Your task to perform on an android device: toggle notifications settings in the gmail app Image 0: 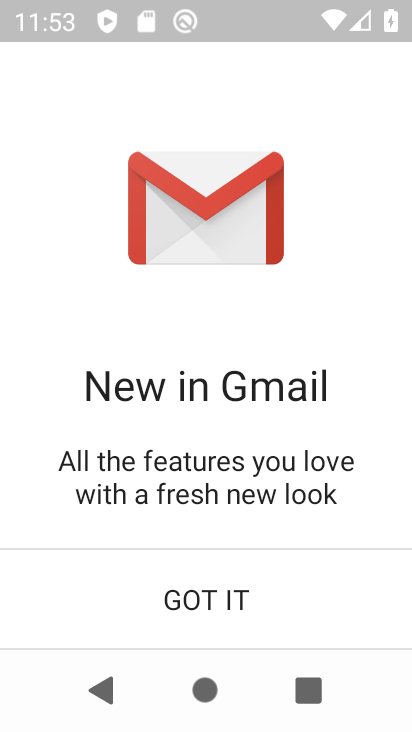
Step 0: press home button
Your task to perform on an android device: toggle notifications settings in the gmail app Image 1: 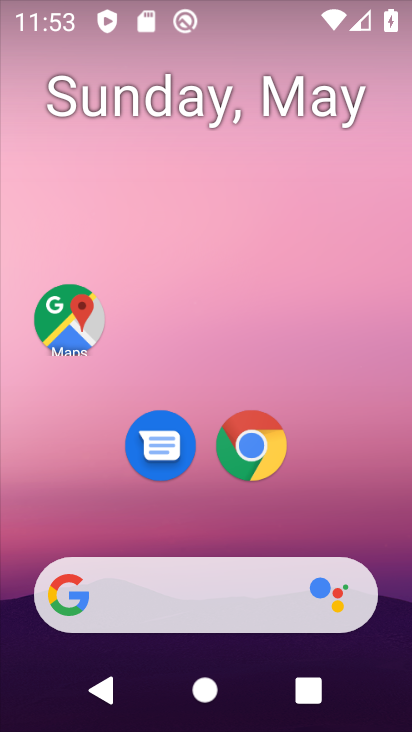
Step 1: drag from (296, 488) to (307, 73)
Your task to perform on an android device: toggle notifications settings in the gmail app Image 2: 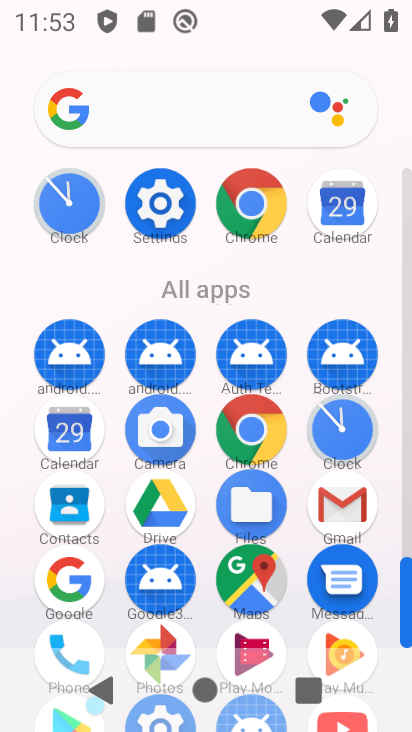
Step 2: click (345, 502)
Your task to perform on an android device: toggle notifications settings in the gmail app Image 3: 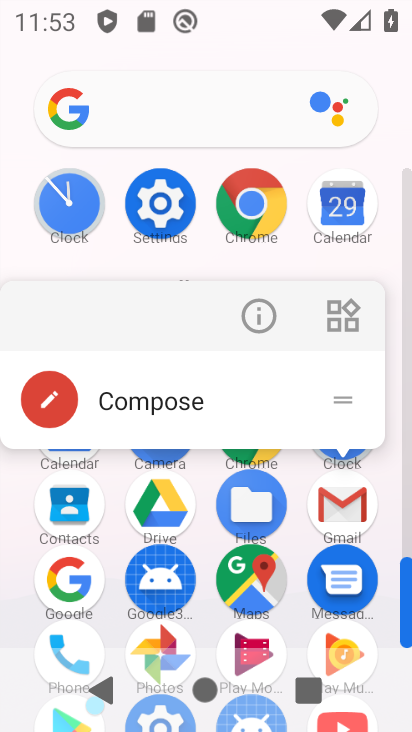
Step 3: click (261, 307)
Your task to perform on an android device: toggle notifications settings in the gmail app Image 4: 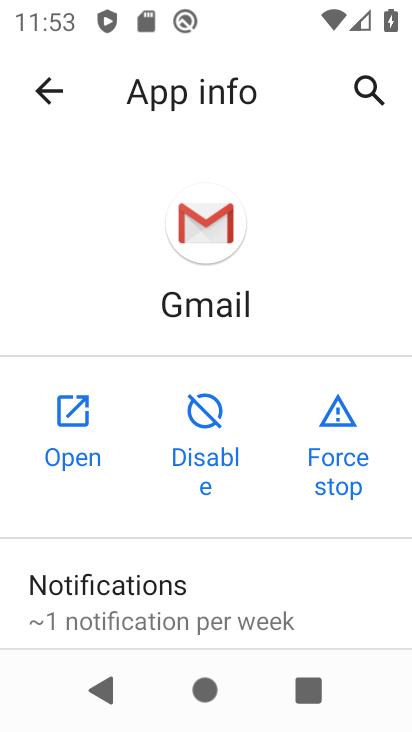
Step 4: click (136, 595)
Your task to perform on an android device: toggle notifications settings in the gmail app Image 5: 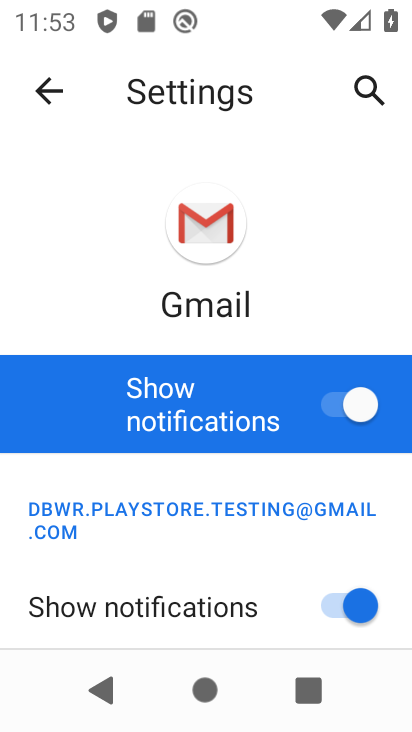
Step 5: click (360, 400)
Your task to perform on an android device: toggle notifications settings in the gmail app Image 6: 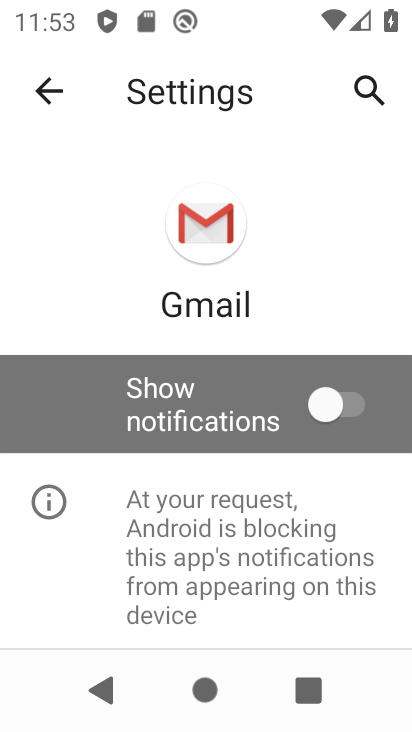
Step 6: task complete